Your task to perform on an android device: change the clock display to show seconds Image 0: 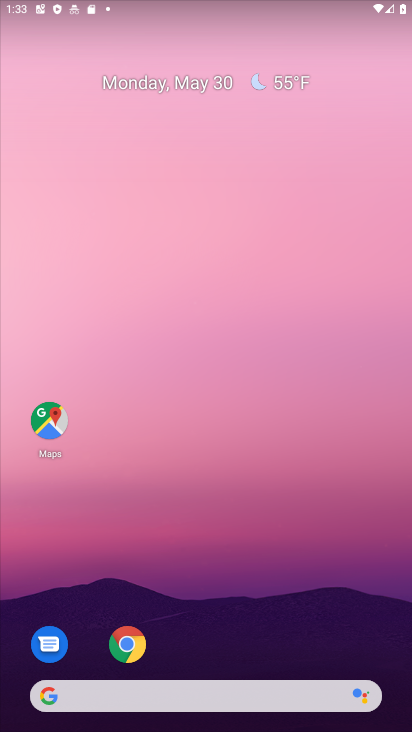
Step 0: drag from (281, 616) to (257, 126)
Your task to perform on an android device: change the clock display to show seconds Image 1: 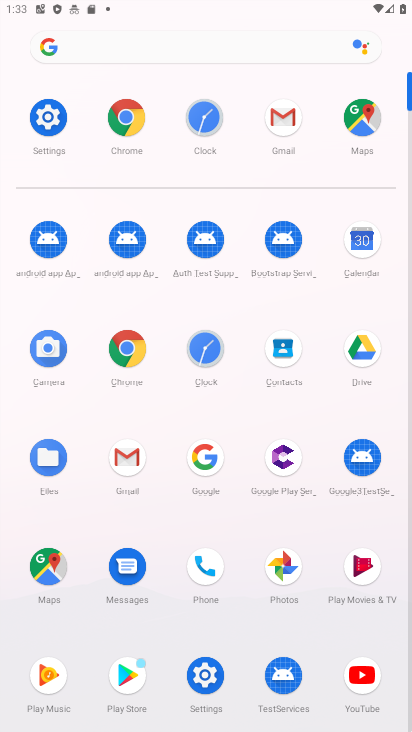
Step 1: click (197, 131)
Your task to perform on an android device: change the clock display to show seconds Image 2: 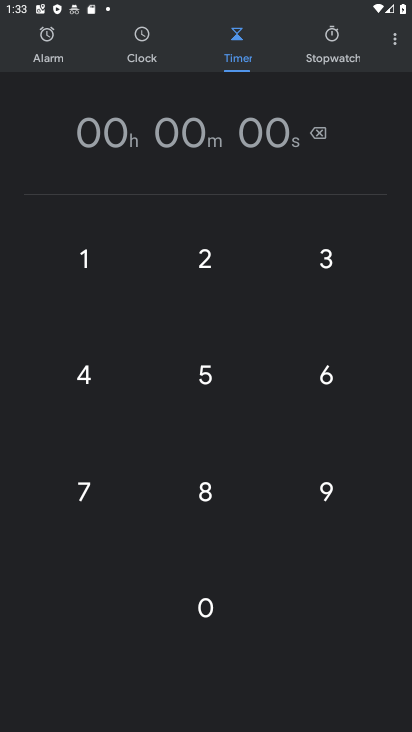
Step 2: click (394, 52)
Your task to perform on an android device: change the clock display to show seconds Image 3: 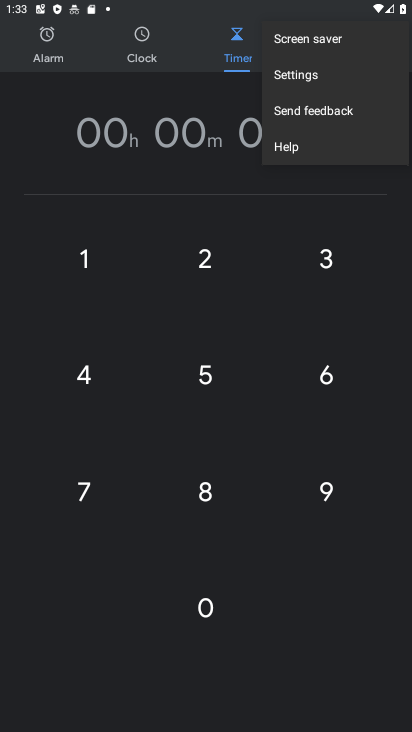
Step 3: click (350, 69)
Your task to perform on an android device: change the clock display to show seconds Image 4: 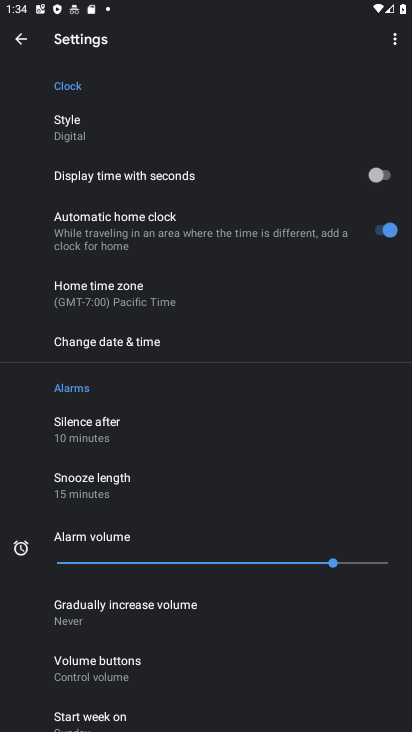
Step 4: click (368, 176)
Your task to perform on an android device: change the clock display to show seconds Image 5: 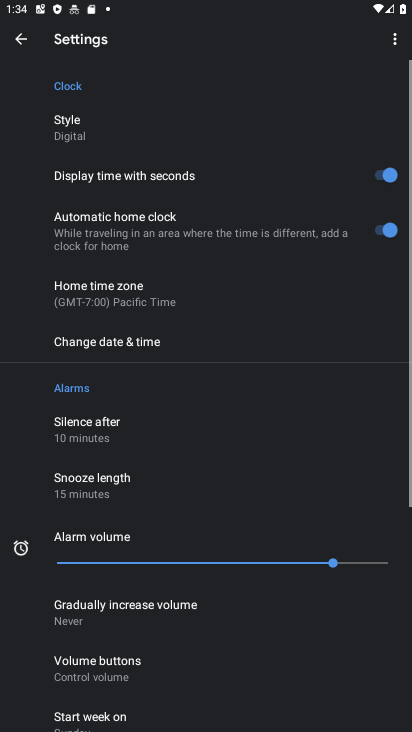
Step 5: task complete